Your task to perform on an android device: open chrome and create a bookmark for the current page Image 0: 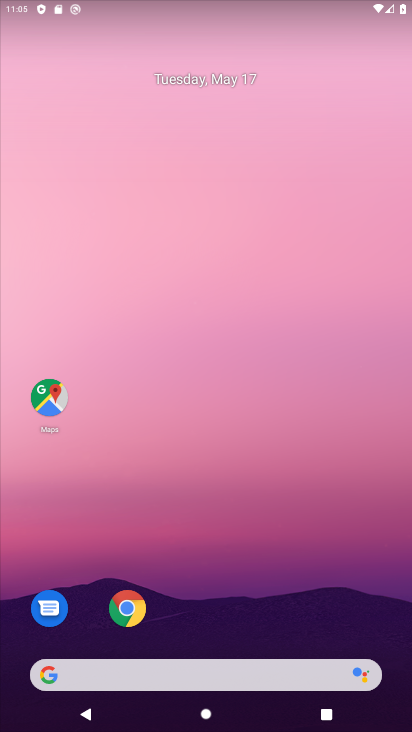
Step 0: click (129, 609)
Your task to perform on an android device: open chrome and create a bookmark for the current page Image 1: 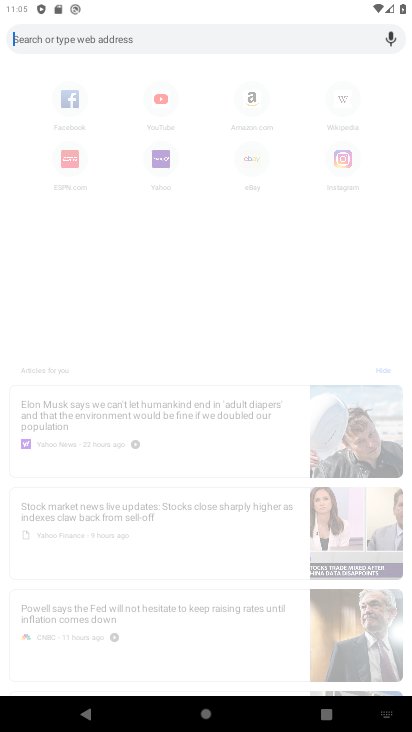
Step 1: click (225, 58)
Your task to perform on an android device: open chrome and create a bookmark for the current page Image 2: 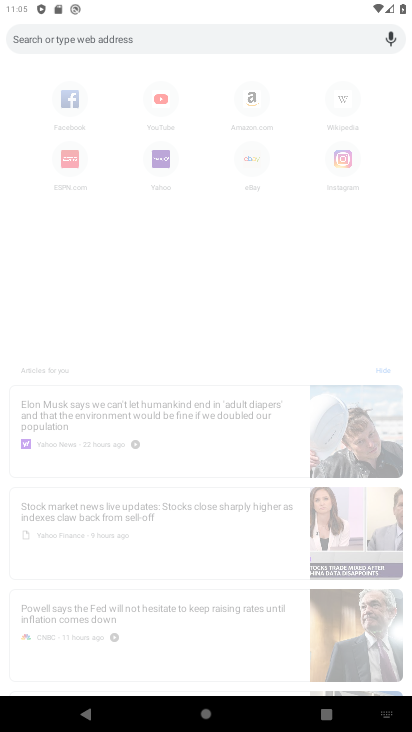
Step 2: press back button
Your task to perform on an android device: open chrome and create a bookmark for the current page Image 3: 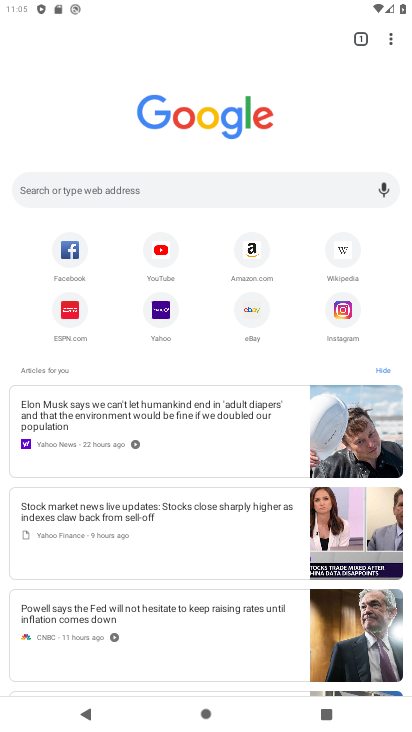
Step 3: click (386, 32)
Your task to perform on an android device: open chrome and create a bookmark for the current page Image 4: 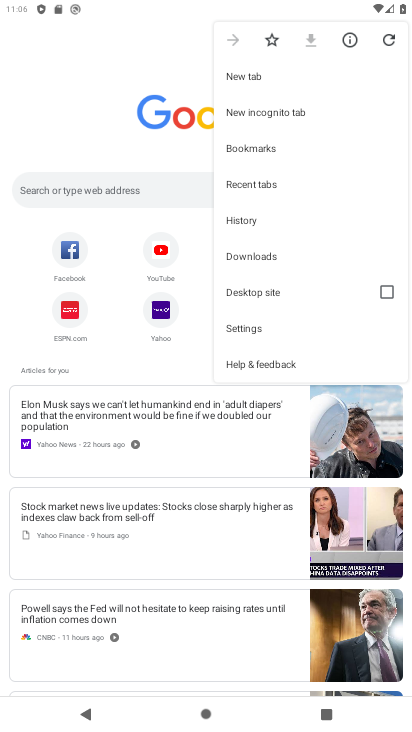
Step 4: click (273, 40)
Your task to perform on an android device: open chrome and create a bookmark for the current page Image 5: 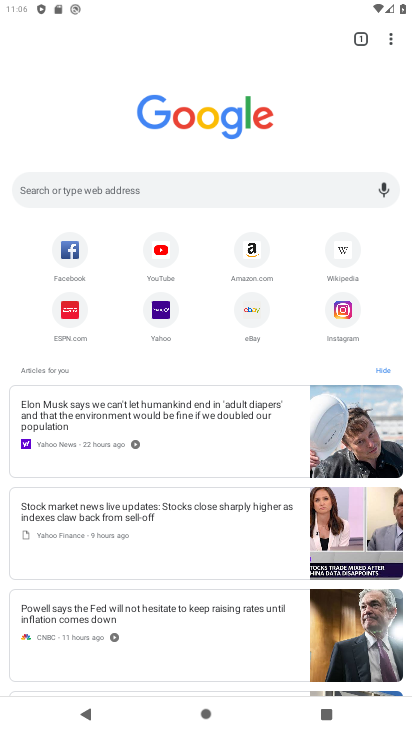
Step 5: click (389, 35)
Your task to perform on an android device: open chrome and create a bookmark for the current page Image 6: 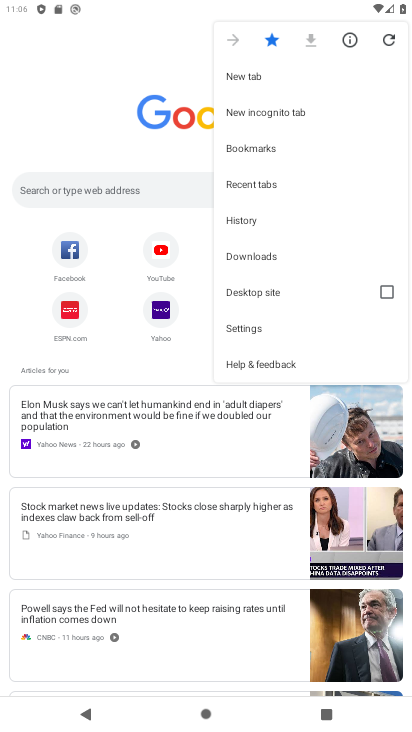
Step 6: task complete